Your task to perform on an android device: turn on showing notifications on the lock screen Image 0: 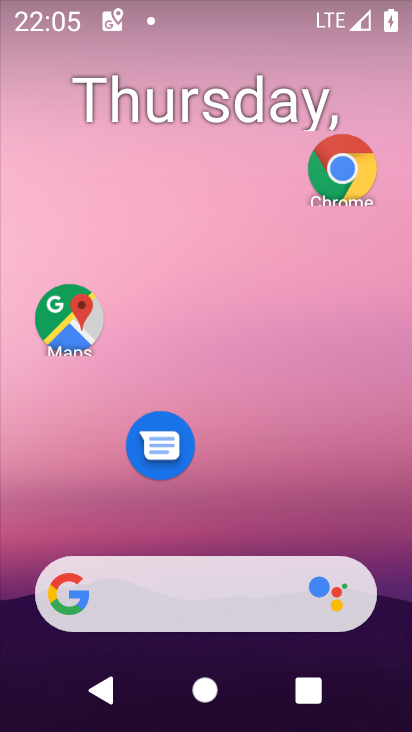
Step 0: click (253, 120)
Your task to perform on an android device: turn on showing notifications on the lock screen Image 1: 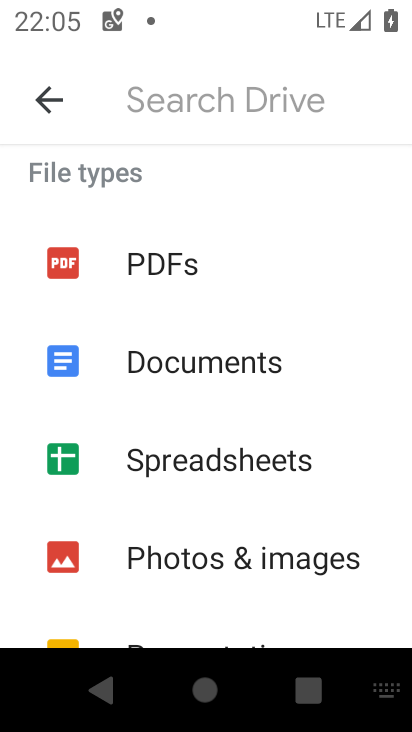
Step 1: click (62, 100)
Your task to perform on an android device: turn on showing notifications on the lock screen Image 2: 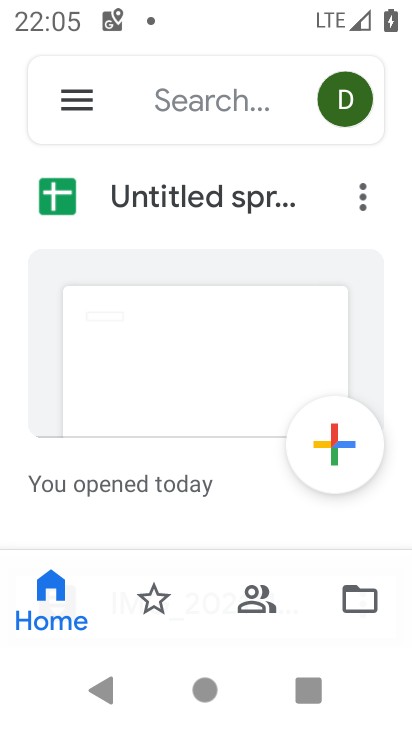
Step 2: drag from (271, 576) to (268, 224)
Your task to perform on an android device: turn on showing notifications on the lock screen Image 3: 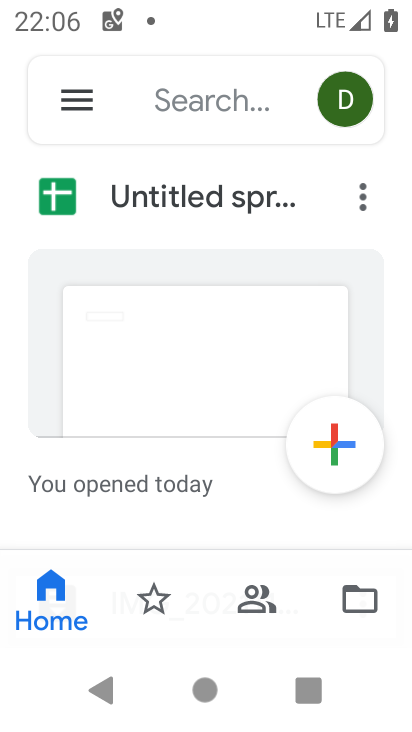
Step 3: press home button
Your task to perform on an android device: turn on showing notifications on the lock screen Image 4: 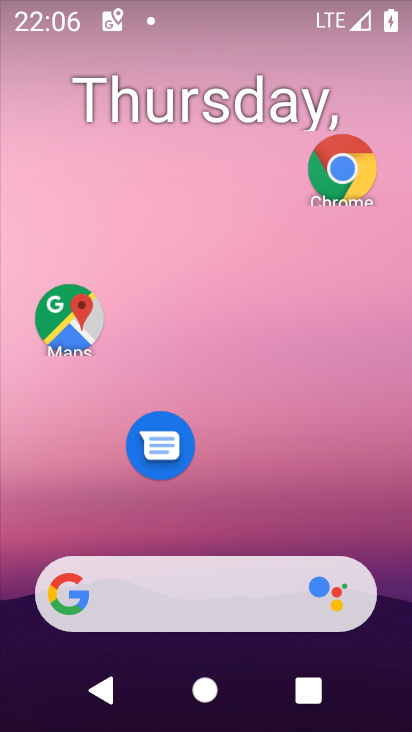
Step 4: drag from (194, 521) to (200, 226)
Your task to perform on an android device: turn on showing notifications on the lock screen Image 5: 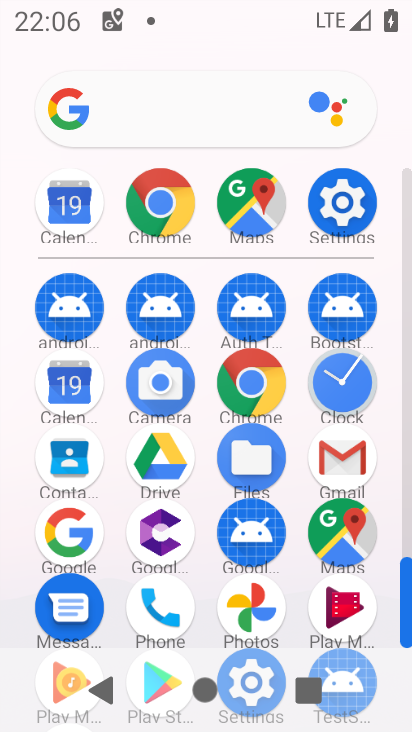
Step 5: click (333, 197)
Your task to perform on an android device: turn on showing notifications on the lock screen Image 6: 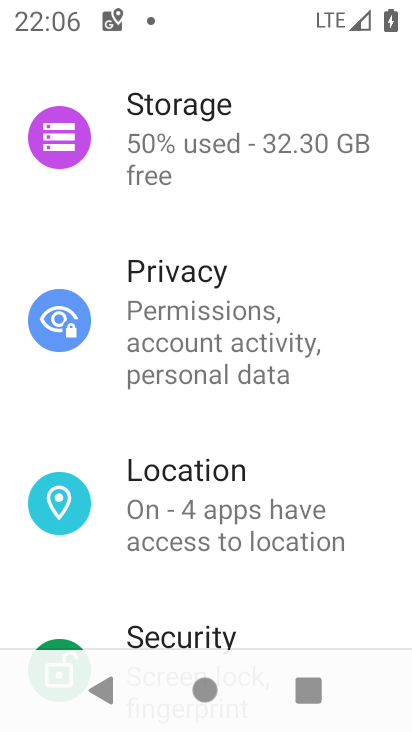
Step 6: drag from (268, 484) to (382, 30)
Your task to perform on an android device: turn on showing notifications on the lock screen Image 7: 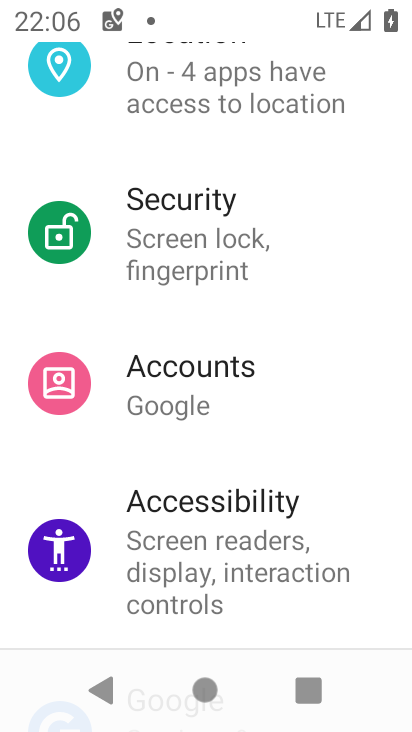
Step 7: drag from (273, 463) to (318, 16)
Your task to perform on an android device: turn on showing notifications on the lock screen Image 8: 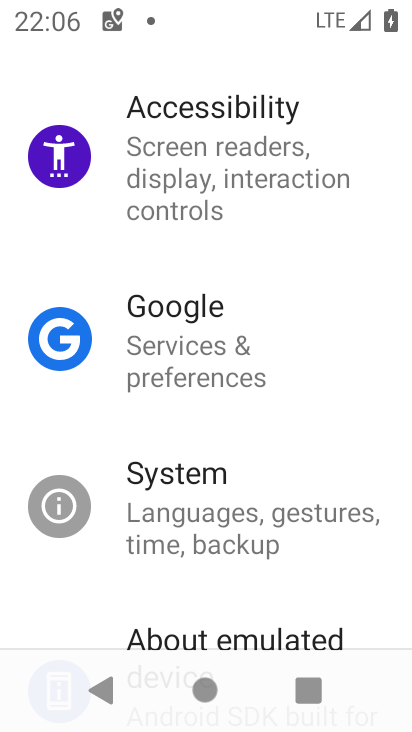
Step 8: drag from (204, 233) to (253, 533)
Your task to perform on an android device: turn on showing notifications on the lock screen Image 9: 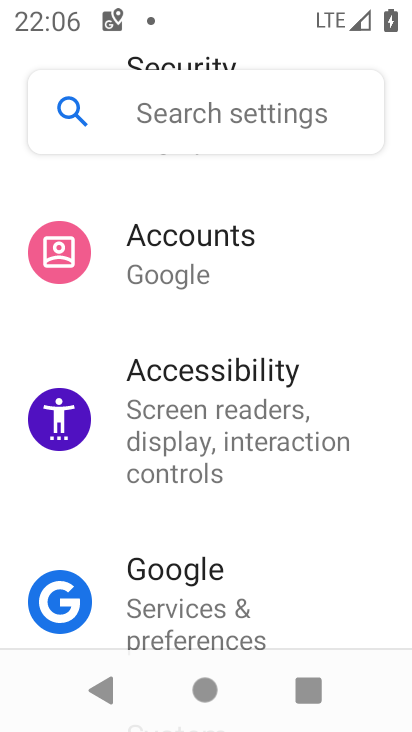
Step 9: drag from (211, 270) to (214, 551)
Your task to perform on an android device: turn on showing notifications on the lock screen Image 10: 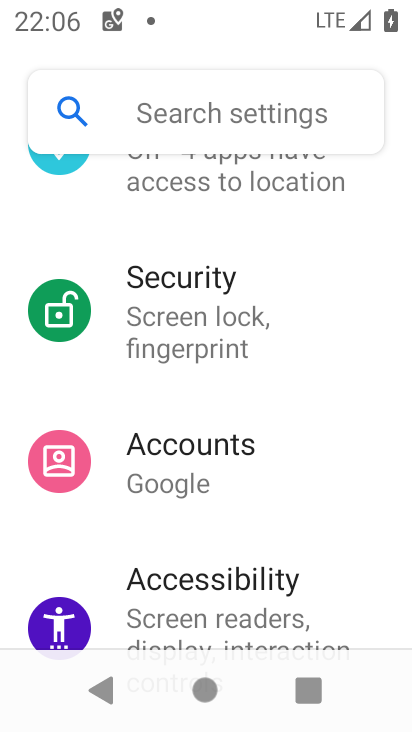
Step 10: drag from (201, 279) to (230, 655)
Your task to perform on an android device: turn on showing notifications on the lock screen Image 11: 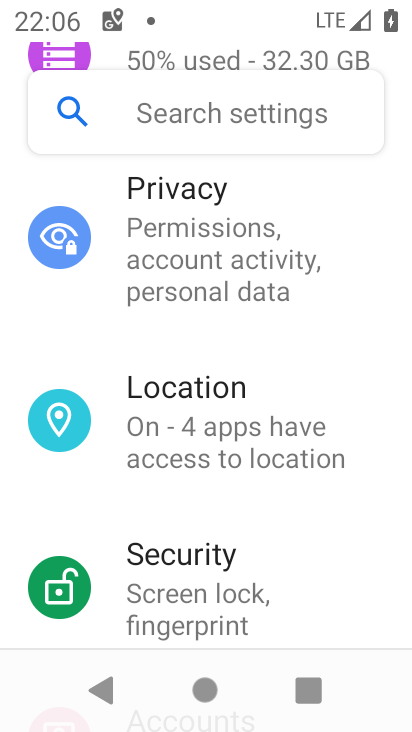
Step 11: drag from (227, 261) to (240, 714)
Your task to perform on an android device: turn on showing notifications on the lock screen Image 12: 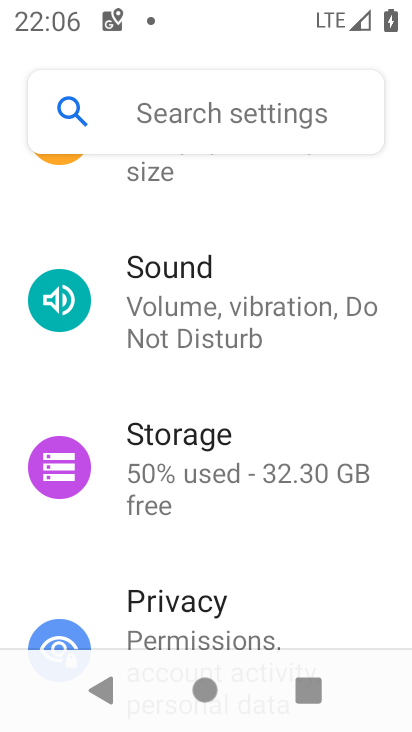
Step 12: drag from (211, 262) to (273, 678)
Your task to perform on an android device: turn on showing notifications on the lock screen Image 13: 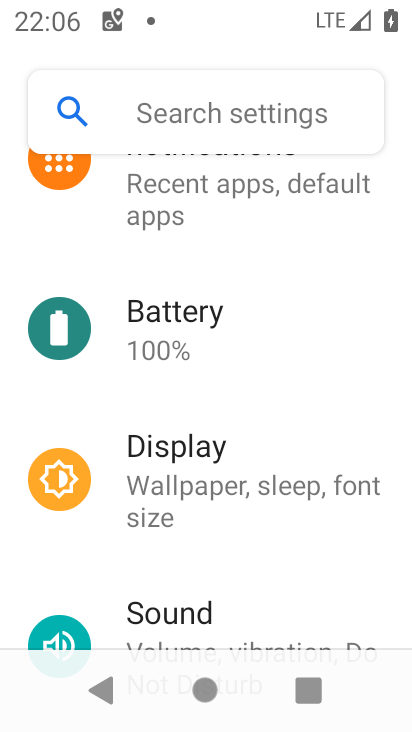
Step 13: drag from (255, 271) to (261, 657)
Your task to perform on an android device: turn on showing notifications on the lock screen Image 14: 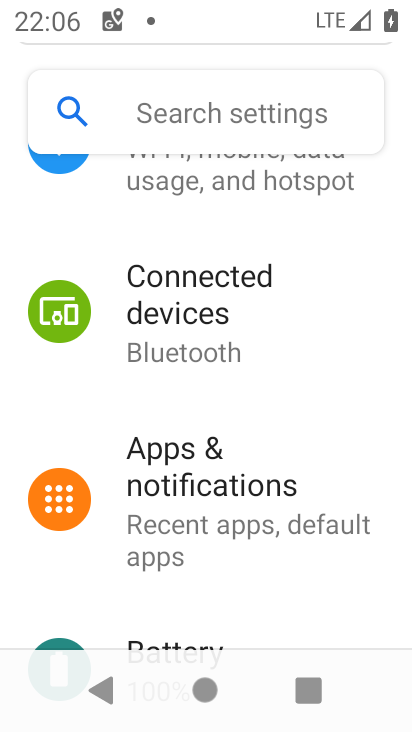
Step 14: click (195, 460)
Your task to perform on an android device: turn on showing notifications on the lock screen Image 15: 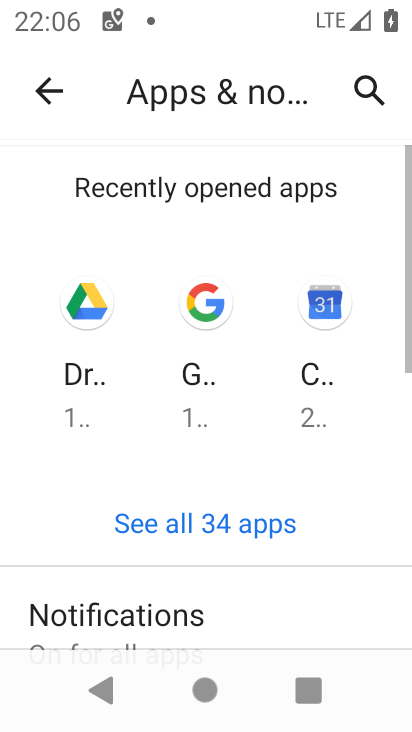
Step 15: drag from (265, 582) to (349, 167)
Your task to perform on an android device: turn on showing notifications on the lock screen Image 16: 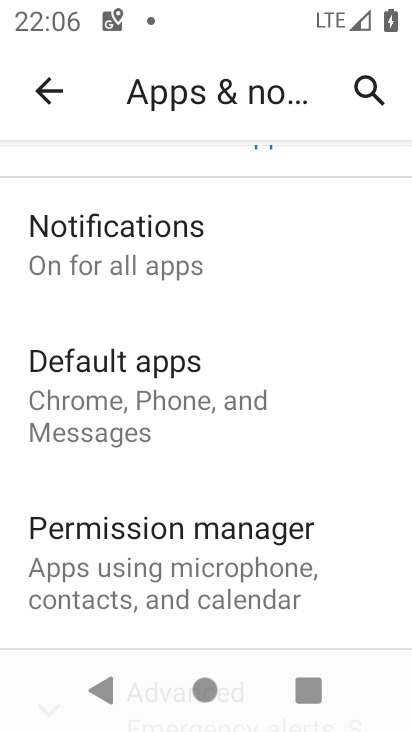
Step 16: click (145, 258)
Your task to perform on an android device: turn on showing notifications on the lock screen Image 17: 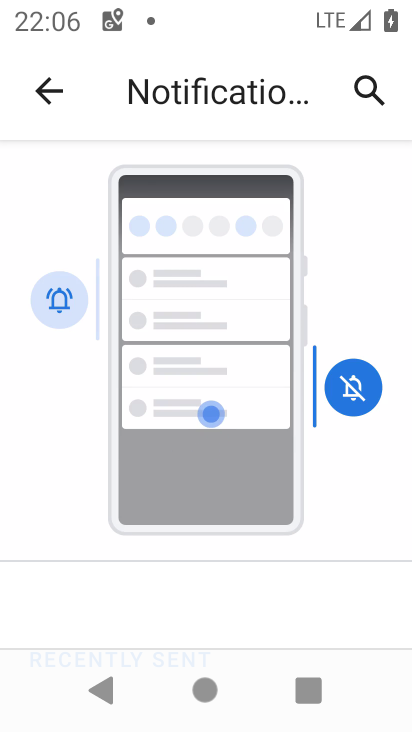
Step 17: drag from (245, 570) to (349, 63)
Your task to perform on an android device: turn on showing notifications on the lock screen Image 18: 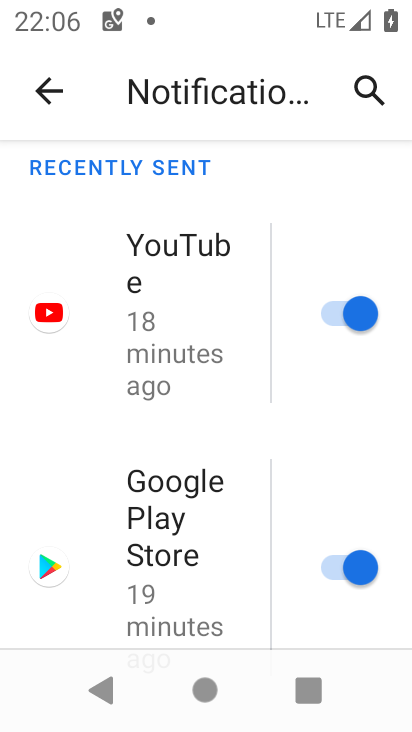
Step 18: drag from (211, 588) to (314, 100)
Your task to perform on an android device: turn on showing notifications on the lock screen Image 19: 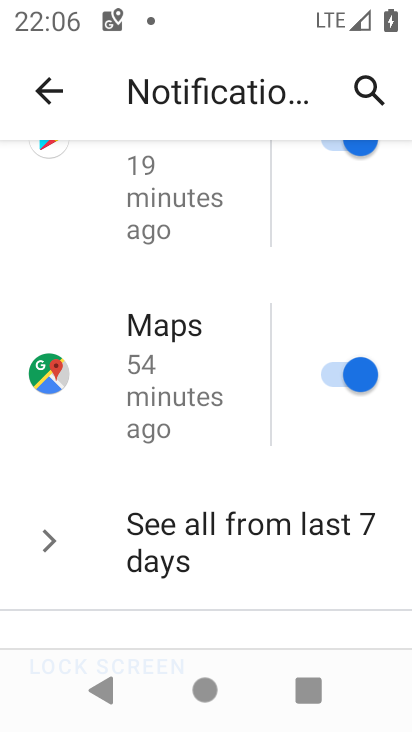
Step 19: drag from (236, 553) to (294, 149)
Your task to perform on an android device: turn on showing notifications on the lock screen Image 20: 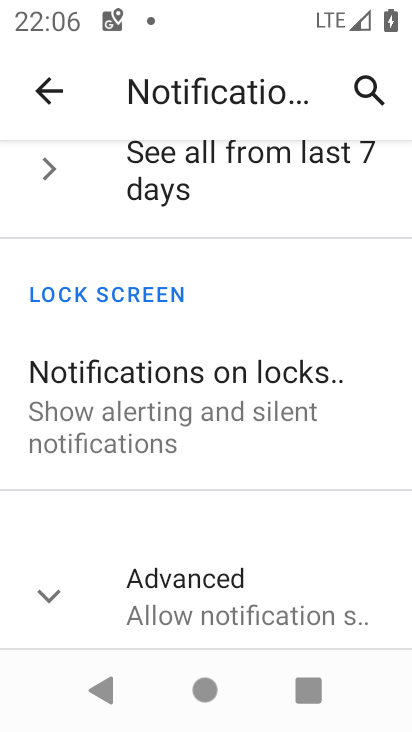
Step 20: click (194, 430)
Your task to perform on an android device: turn on showing notifications on the lock screen Image 21: 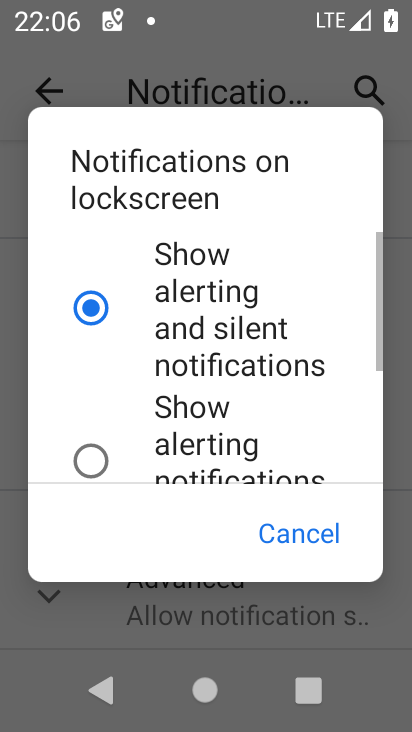
Step 21: drag from (273, 378) to (358, 62)
Your task to perform on an android device: turn on showing notifications on the lock screen Image 22: 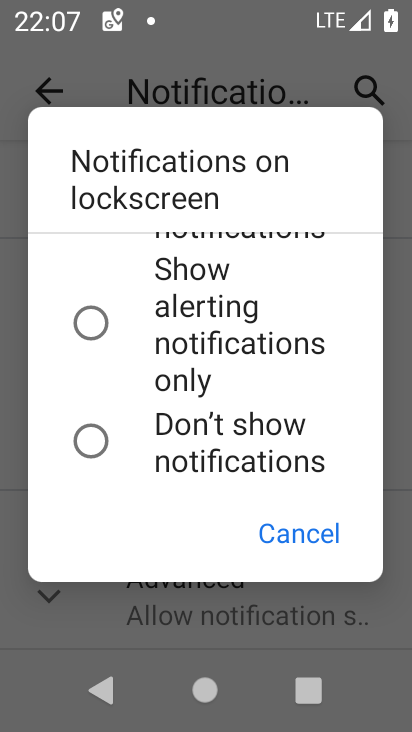
Step 22: click (147, 293)
Your task to perform on an android device: turn on showing notifications on the lock screen Image 23: 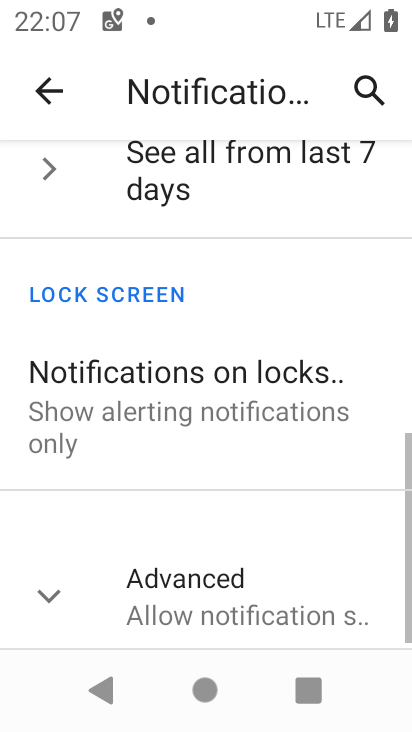
Step 23: task complete